Your task to perform on an android device: turn off wifi Image 0: 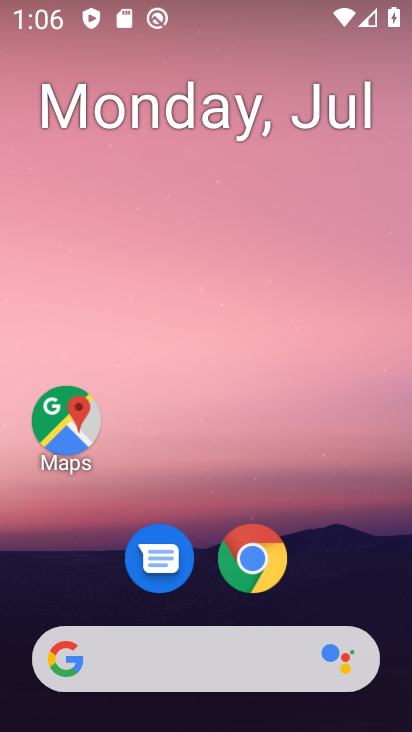
Step 0: press home button
Your task to perform on an android device: turn off wifi Image 1: 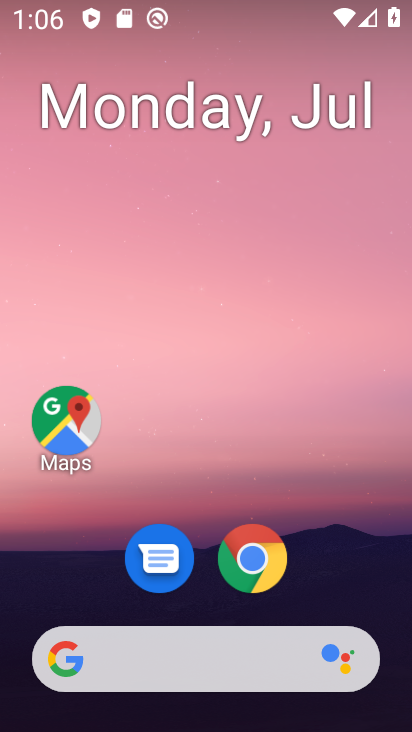
Step 1: drag from (385, 590) to (376, 145)
Your task to perform on an android device: turn off wifi Image 2: 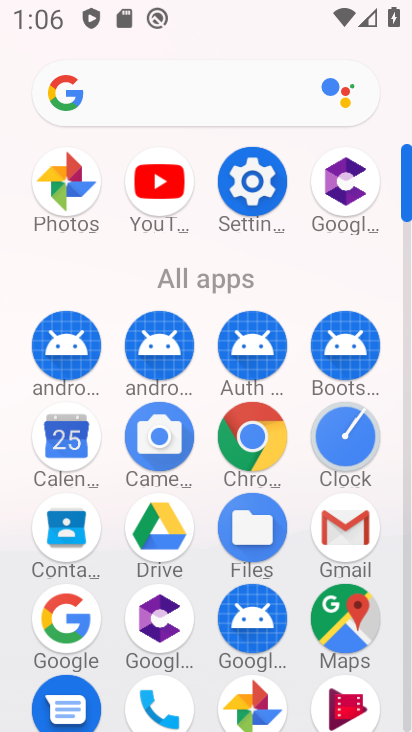
Step 2: click (255, 185)
Your task to perform on an android device: turn off wifi Image 3: 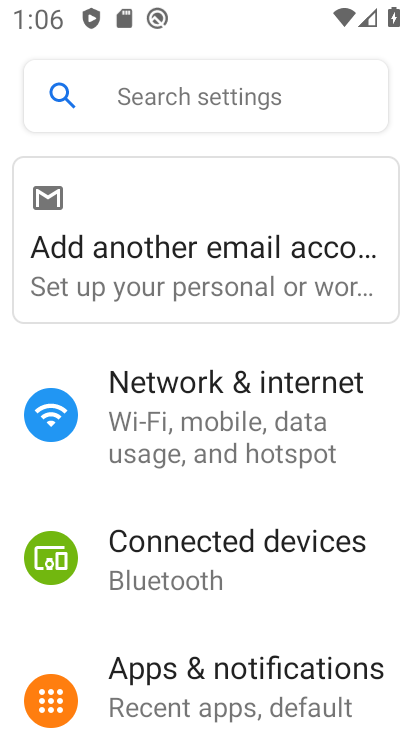
Step 3: drag from (347, 586) to (360, 474)
Your task to perform on an android device: turn off wifi Image 4: 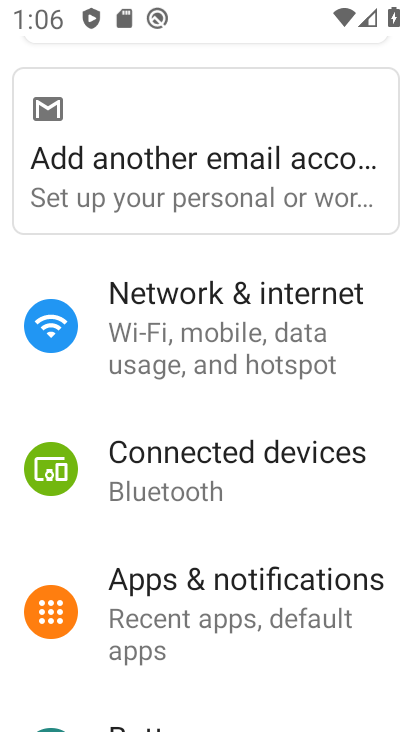
Step 4: drag from (353, 618) to (354, 508)
Your task to perform on an android device: turn off wifi Image 5: 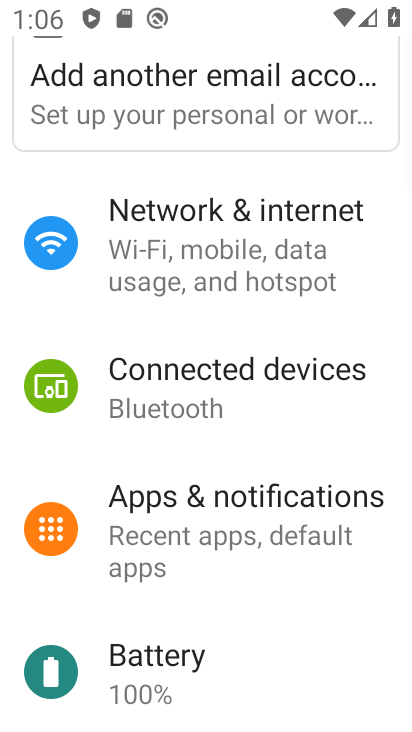
Step 5: drag from (347, 593) to (342, 458)
Your task to perform on an android device: turn off wifi Image 6: 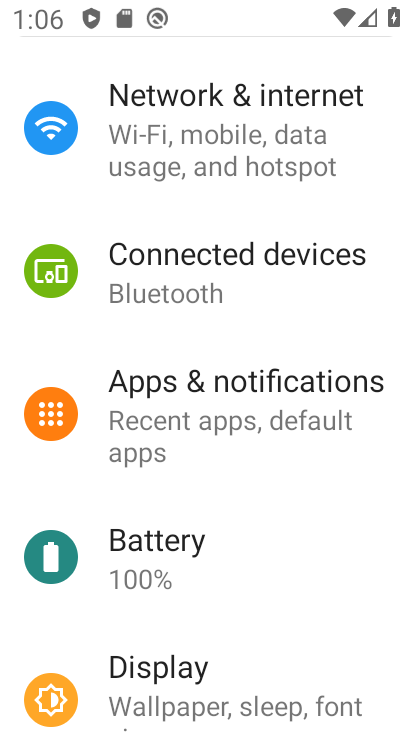
Step 6: drag from (322, 604) to (329, 455)
Your task to perform on an android device: turn off wifi Image 7: 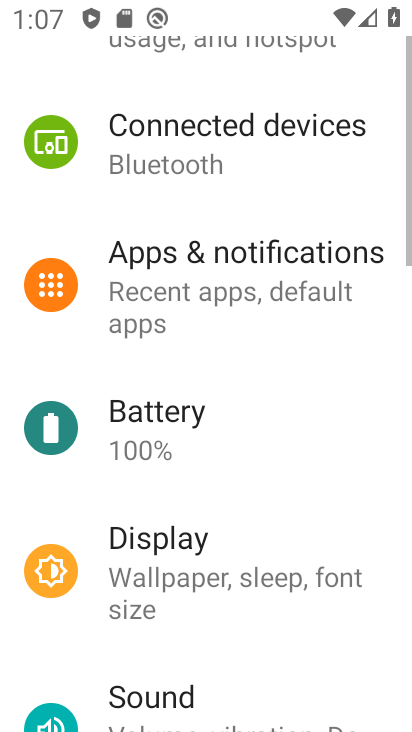
Step 7: drag from (336, 586) to (342, 457)
Your task to perform on an android device: turn off wifi Image 8: 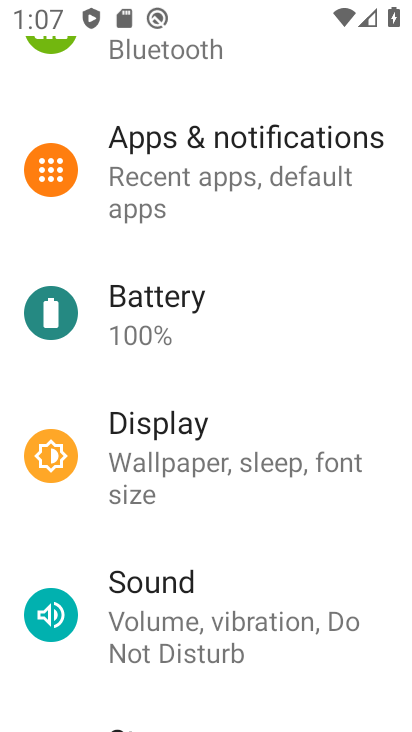
Step 8: drag from (365, 574) to (356, 419)
Your task to perform on an android device: turn off wifi Image 9: 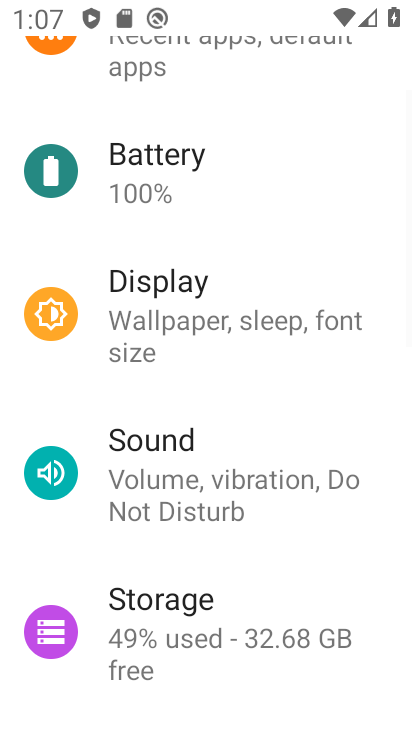
Step 9: drag from (340, 554) to (344, 412)
Your task to perform on an android device: turn off wifi Image 10: 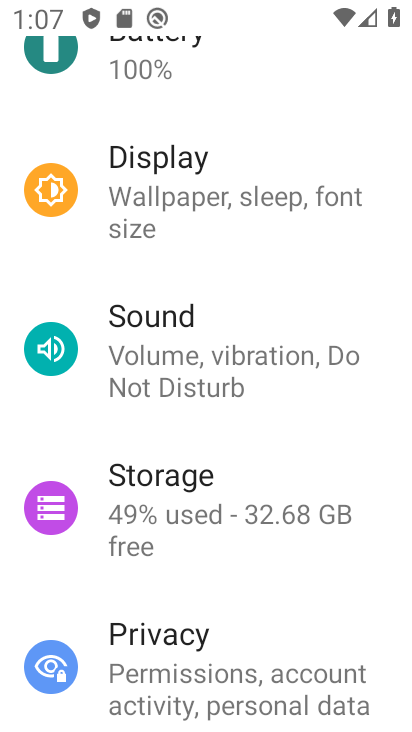
Step 10: drag from (332, 586) to (332, 442)
Your task to perform on an android device: turn off wifi Image 11: 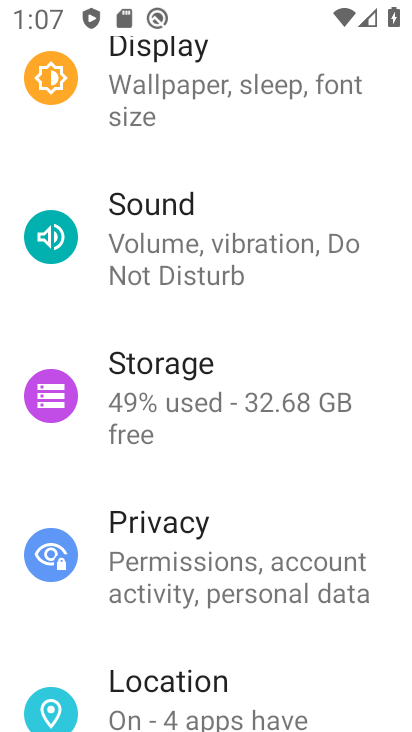
Step 11: drag from (340, 646) to (343, 441)
Your task to perform on an android device: turn off wifi Image 12: 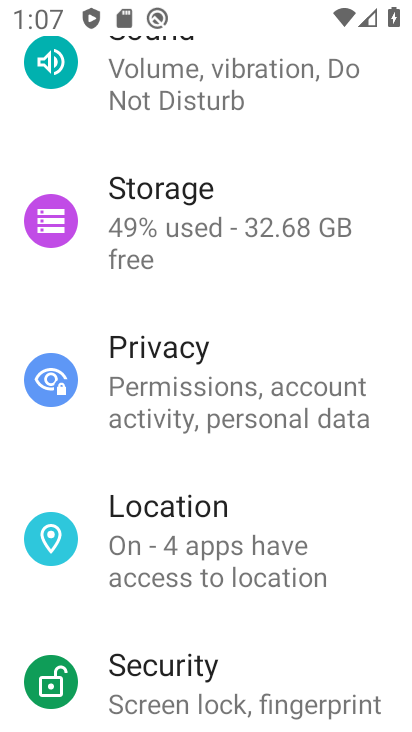
Step 12: drag from (332, 652) to (332, 408)
Your task to perform on an android device: turn off wifi Image 13: 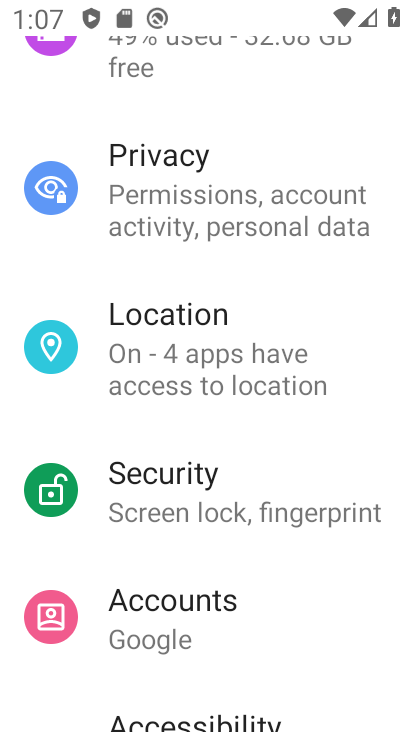
Step 13: drag from (334, 619) to (333, 461)
Your task to perform on an android device: turn off wifi Image 14: 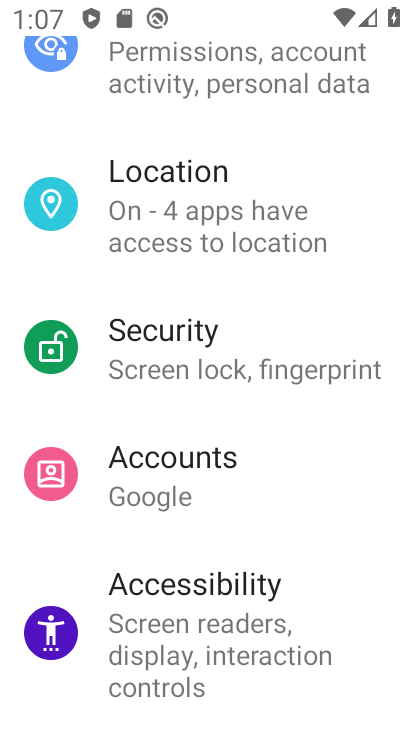
Step 14: drag from (352, 602) to (341, 449)
Your task to perform on an android device: turn off wifi Image 15: 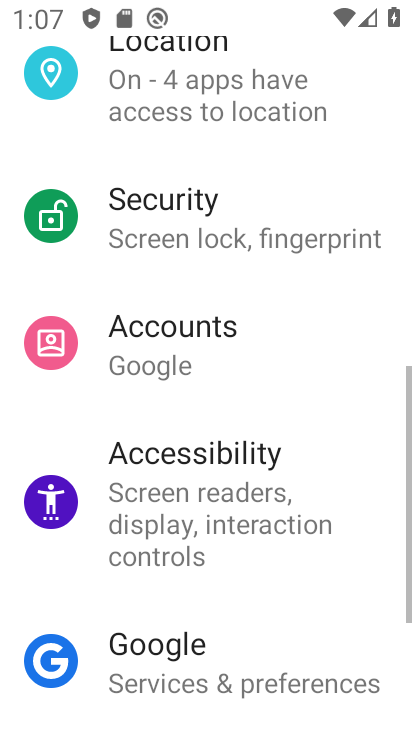
Step 15: drag from (343, 289) to (344, 441)
Your task to perform on an android device: turn off wifi Image 16: 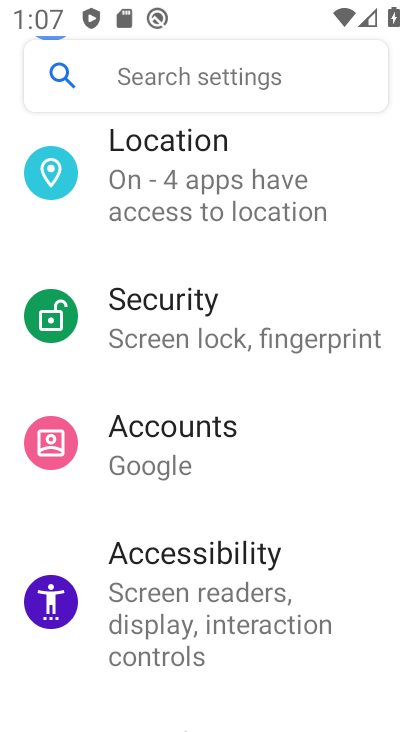
Step 16: drag from (335, 277) to (333, 447)
Your task to perform on an android device: turn off wifi Image 17: 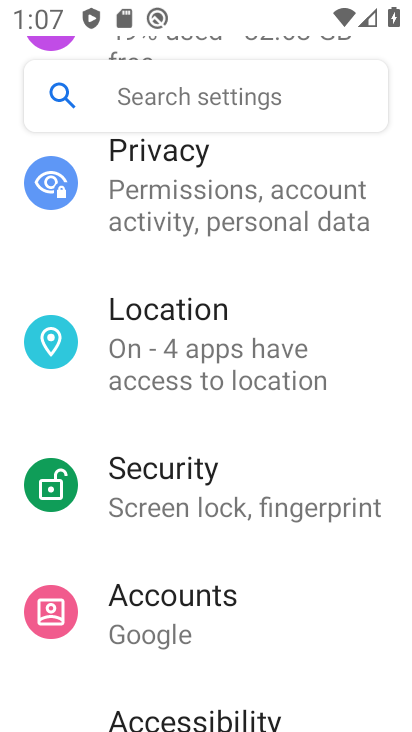
Step 17: drag from (340, 282) to (339, 413)
Your task to perform on an android device: turn off wifi Image 18: 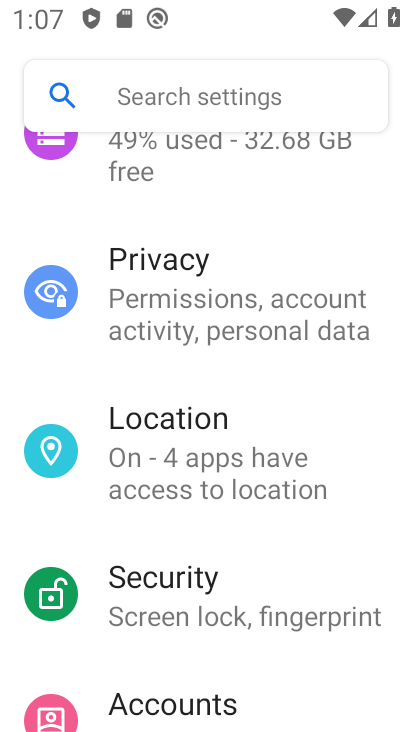
Step 18: drag from (343, 211) to (344, 388)
Your task to perform on an android device: turn off wifi Image 19: 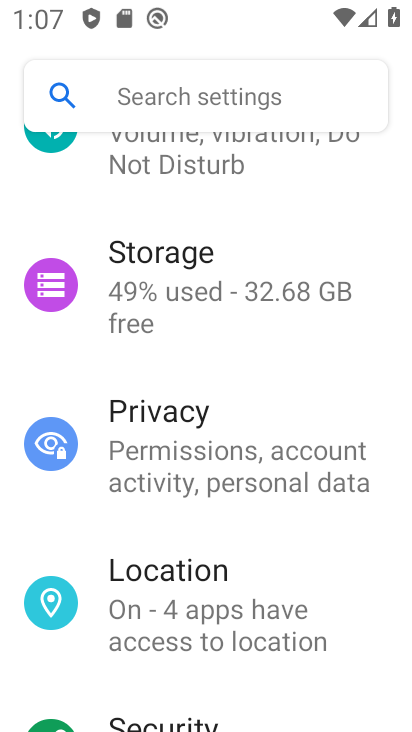
Step 19: drag from (352, 246) to (351, 416)
Your task to perform on an android device: turn off wifi Image 20: 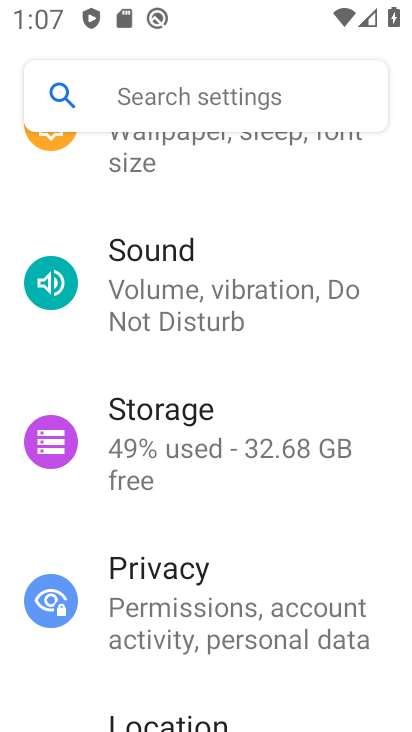
Step 20: drag from (370, 178) to (356, 416)
Your task to perform on an android device: turn off wifi Image 21: 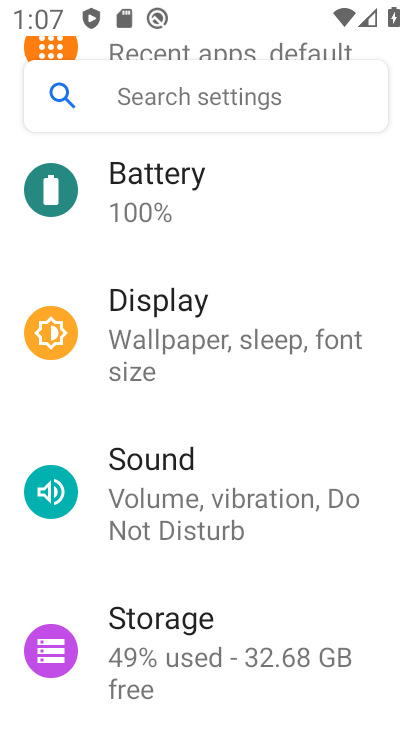
Step 21: drag from (351, 165) to (347, 394)
Your task to perform on an android device: turn off wifi Image 22: 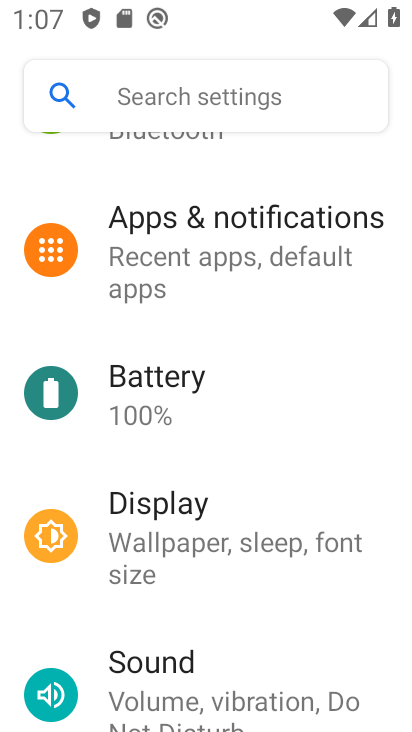
Step 22: drag from (338, 162) to (323, 430)
Your task to perform on an android device: turn off wifi Image 23: 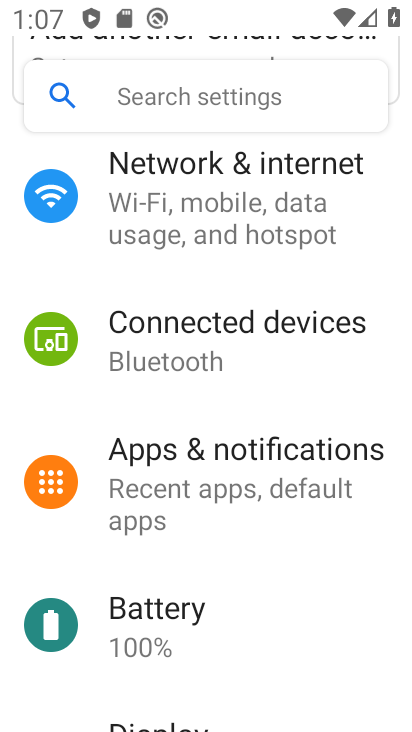
Step 23: click (277, 224)
Your task to perform on an android device: turn off wifi Image 24: 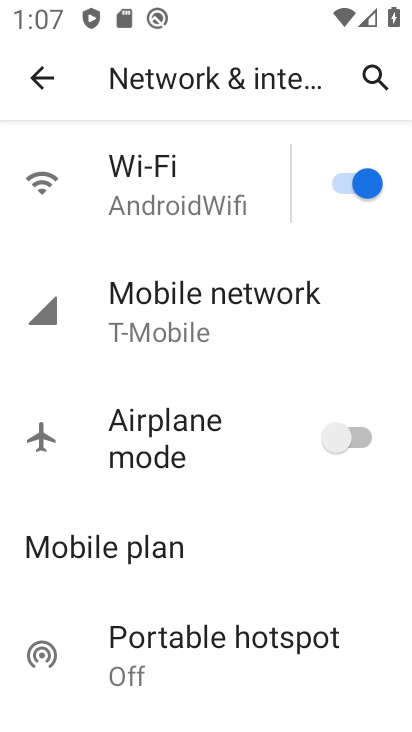
Step 24: click (344, 190)
Your task to perform on an android device: turn off wifi Image 25: 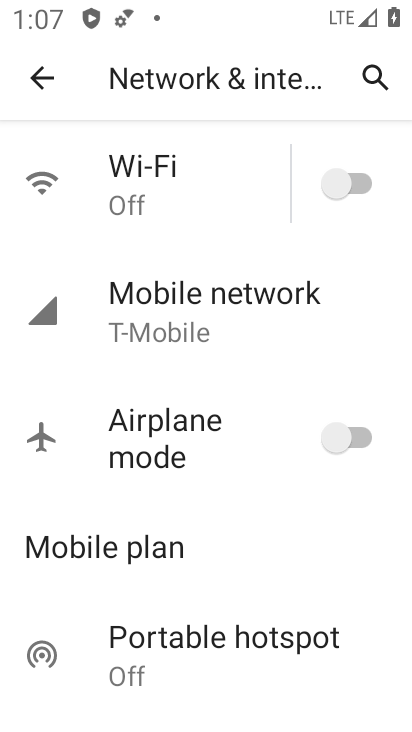
Step 25: task complete